Your task to perform on an android device: find photos in the google photos app Image 0: 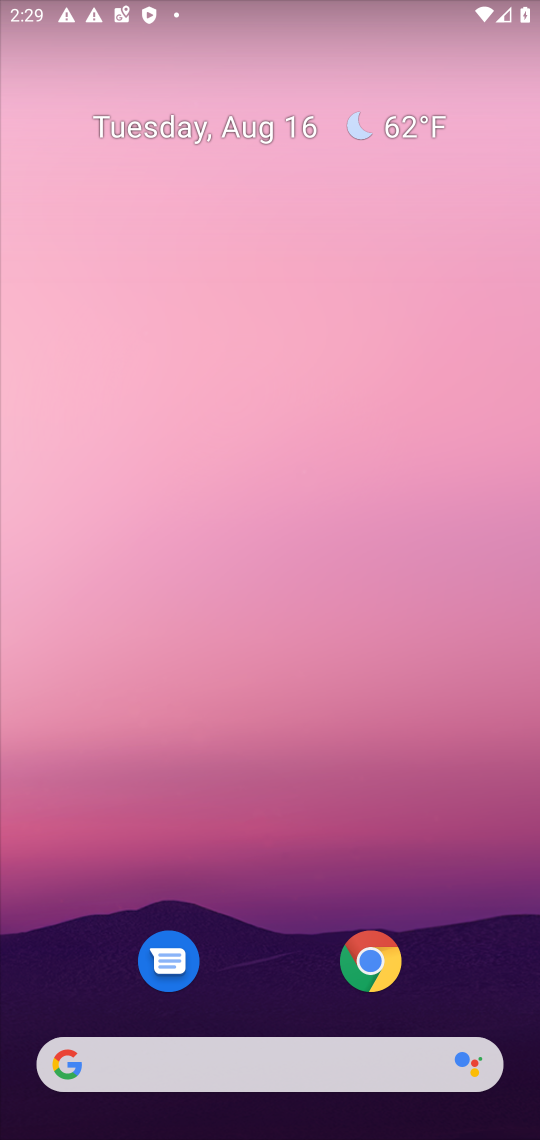
Step 0: drag from (469, 976) to (63, 182)
Your task to perform on an android device: find photos in the google photos app Image 1: 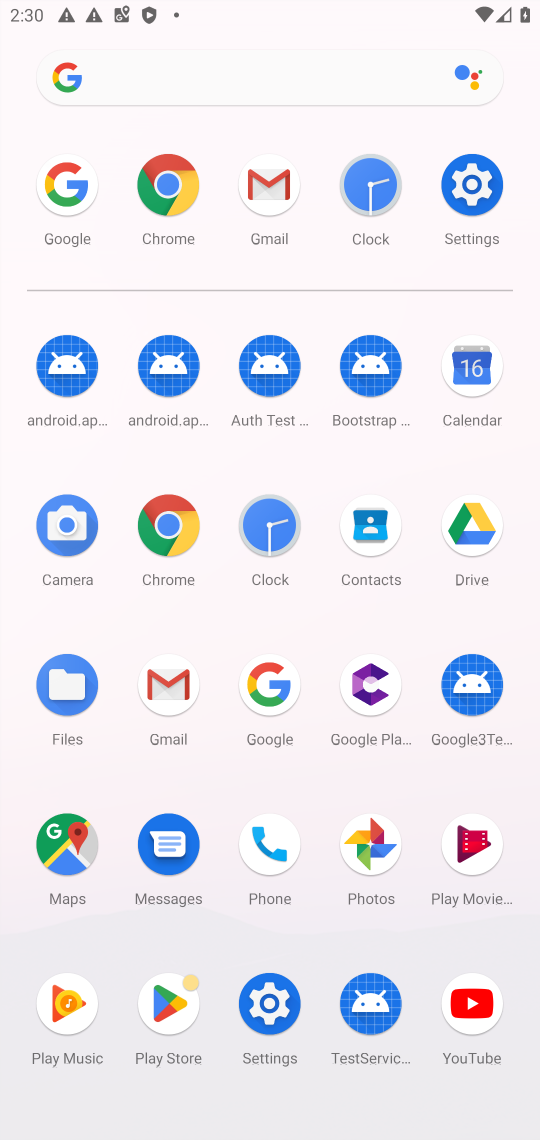
Step 1: click (383, 840)
Your task to perform on an android device: find photos in the google photos app Image 2: 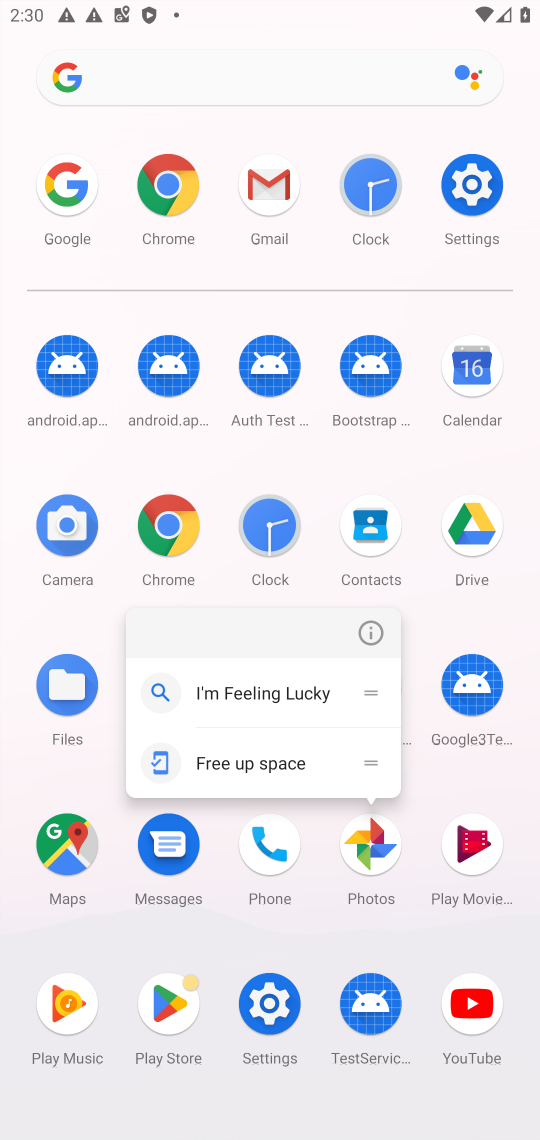
Step 2: click (383, 840)
Your task to perform on an android device: find photos in the google photos app Image 3: 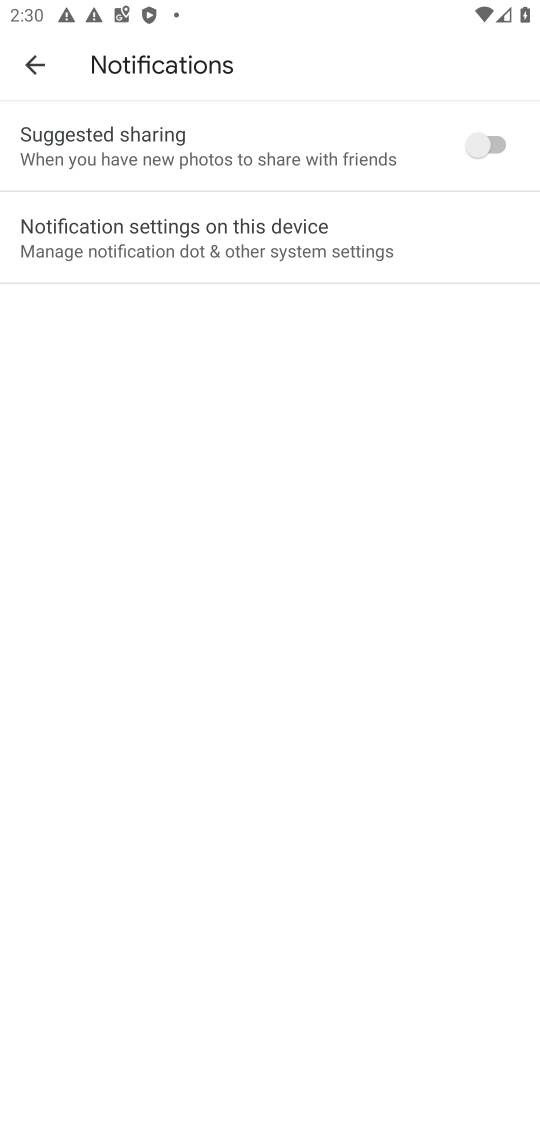
Step 3: task complete